Your task to perform on an android device: Open Amazon Image 0: 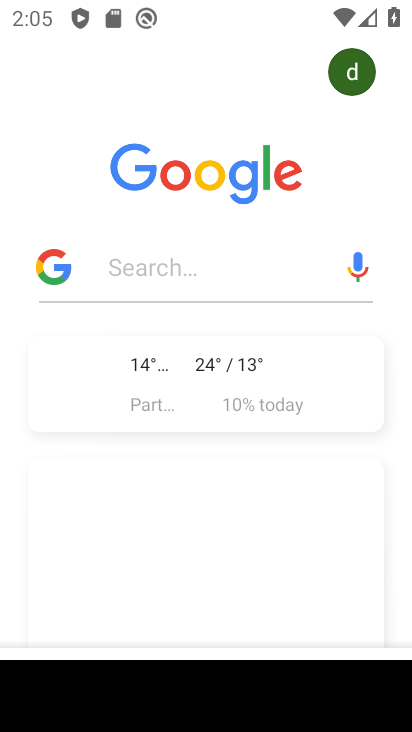
Step 0: press home button
Your task to perform on an android device: Open Amazon Image 1: 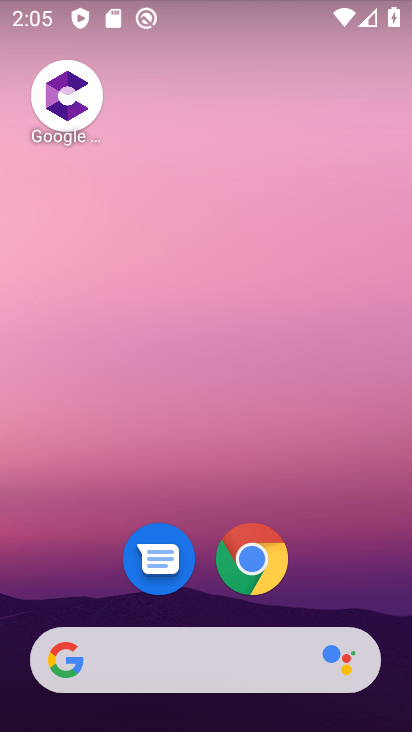
Step 1: click (233, 566)
Your task to perform on an android device: Open Amazon Image 2: 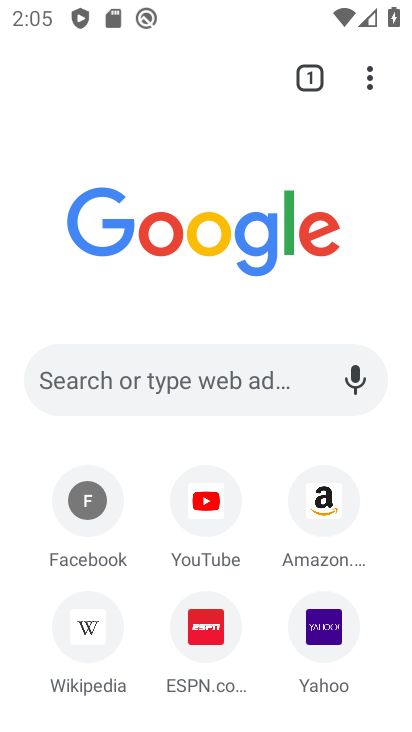
Step 2: click (300, 514)
Your task to perform on an android device: Open Amazon Image 3: 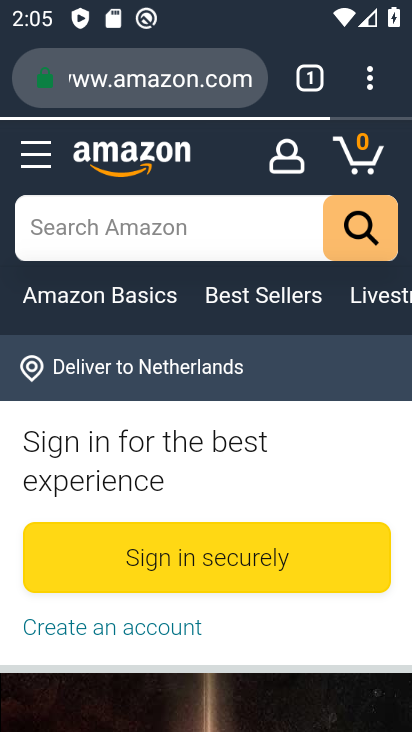
Step 3: task complete